Your task to perform on an android device: star an email in the gmail app Image 0: 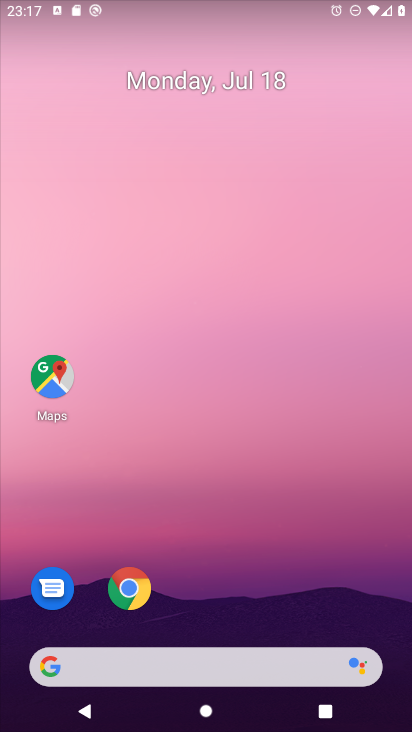
Step 0: drag from (382, 614) to (307, 142)
Your task to perform on an android device: star an email in the gmail app Image 1: 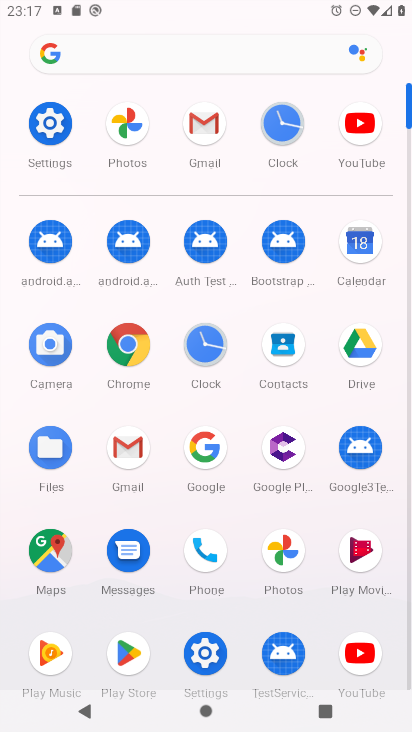
Step 1: click (125, 444)
Your task to perform on an android device: star an email in the gmail app Image 2: 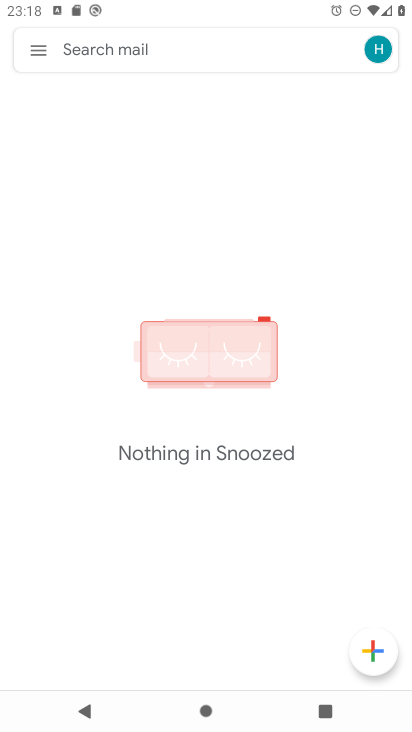
Step 2: click (34, 48)
Your task to perform on an android device: star an email in the gmail app Image 3: 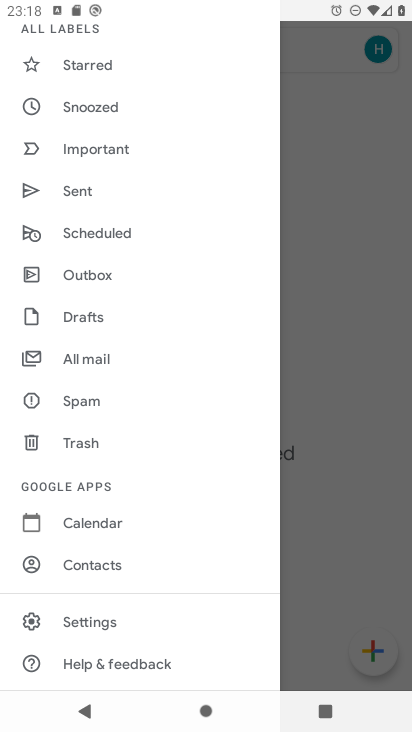
Step 3: click (76, 357)
Your task to perform on an android device: star an email in the gmail app Image 4: 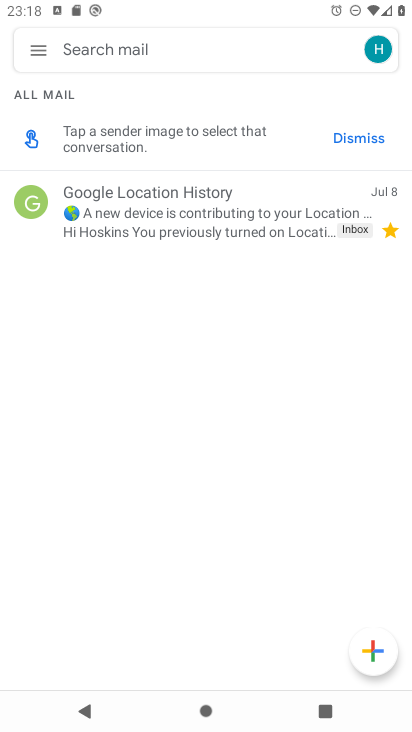
Step 4: task complete